Your task to perform on an android device: change the clock style Image 0: 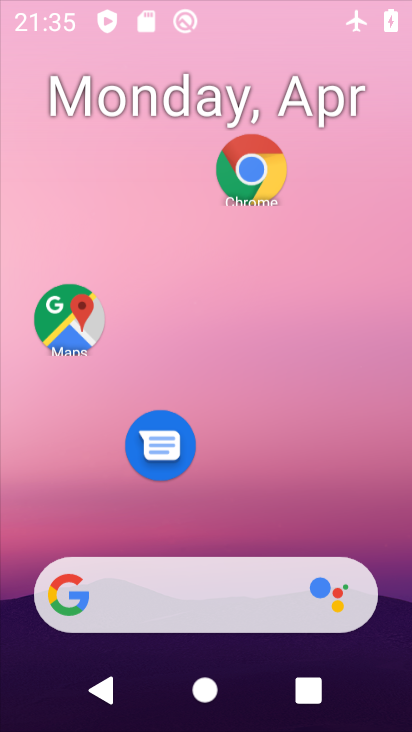
Step 0: click (202, 190)
Your task to perform on an android device: change the clock style Image 1: 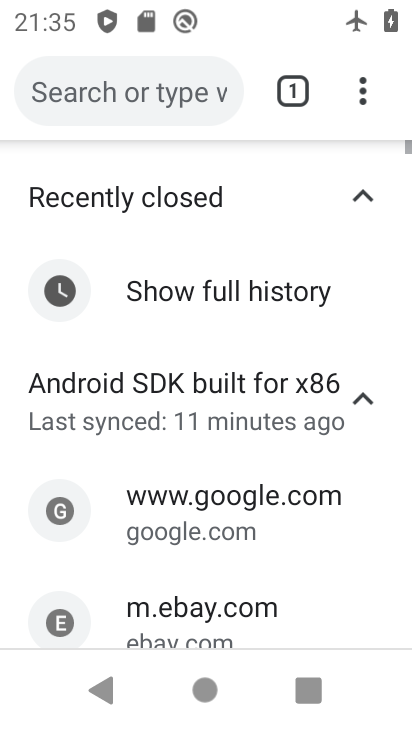
Step 1: click (106, 698)
Your task to perform on an android device: change the clock style Image 2: 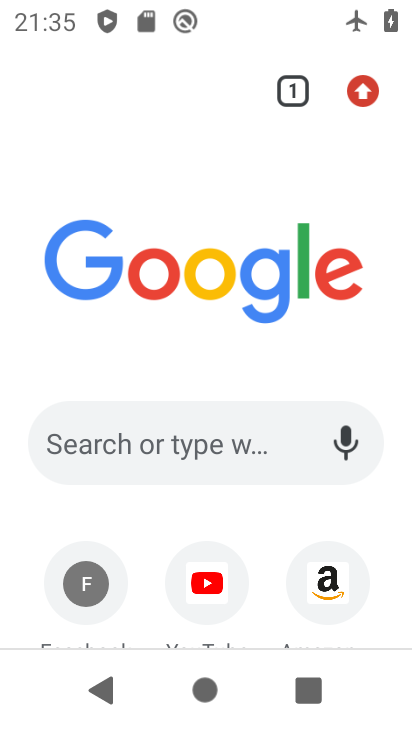
Step 2: press home button
Your task to perform on an android device: change the clock style Image 3: 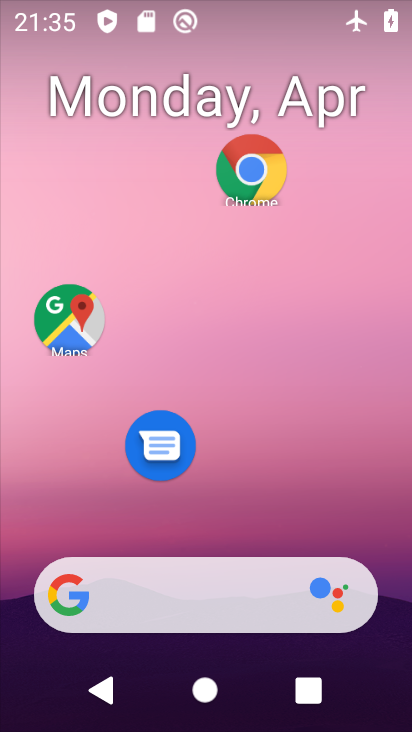
Step 3: drag from (212, 534) to (216, 80)
Your task to perform on an android device: change the clock style Image 4: 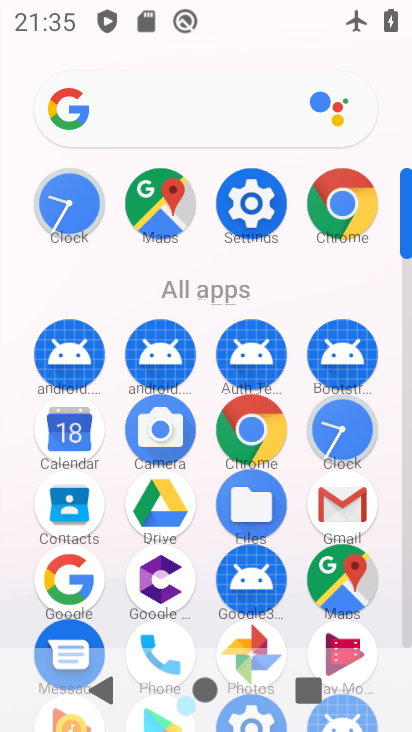
Step 4: click (81, 208)
Your task to perform on an android device: change the clock style Image 5: 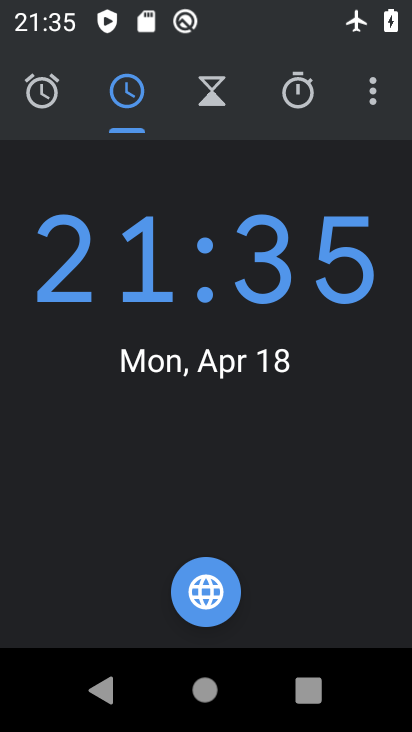
Step 5: click (378, 83)
Your task to perform on an android device: change the clock style Image 6: 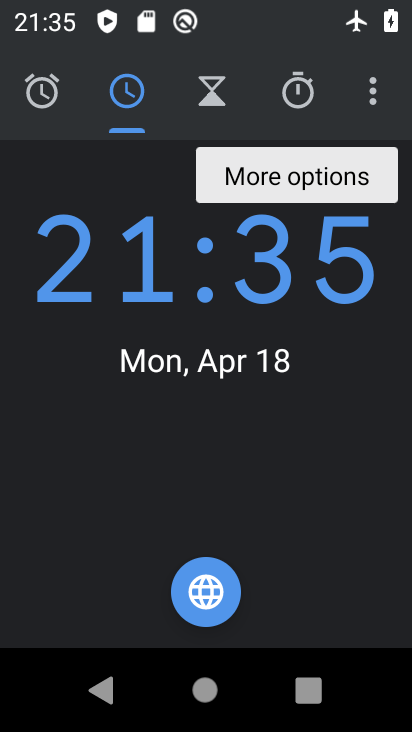
Step 6: click (372, 104)
Your task to perform on an android device: change the clock style Image 7: 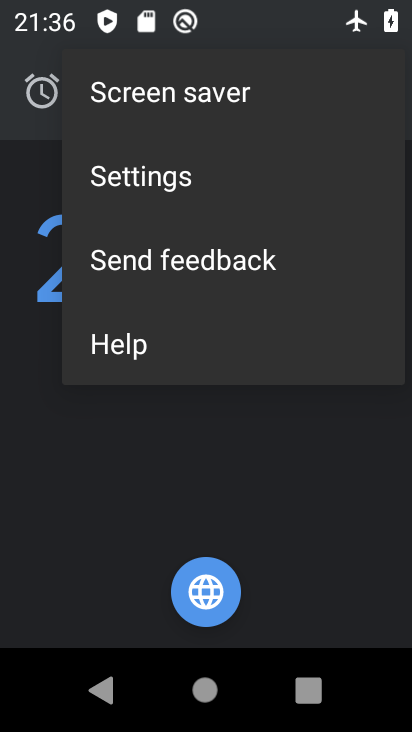
Step 7: click (143, 181)
Your task to perform on an android device: change the clock style Image 8: 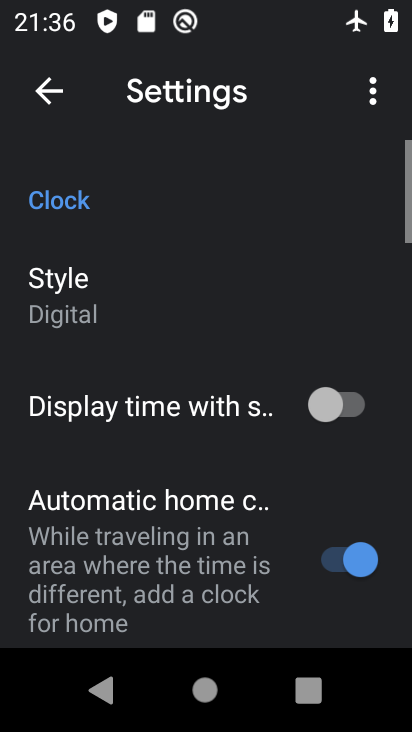
Step 8: click (68, 318)
Your task to perform on an android device: change the clock style Image 9: 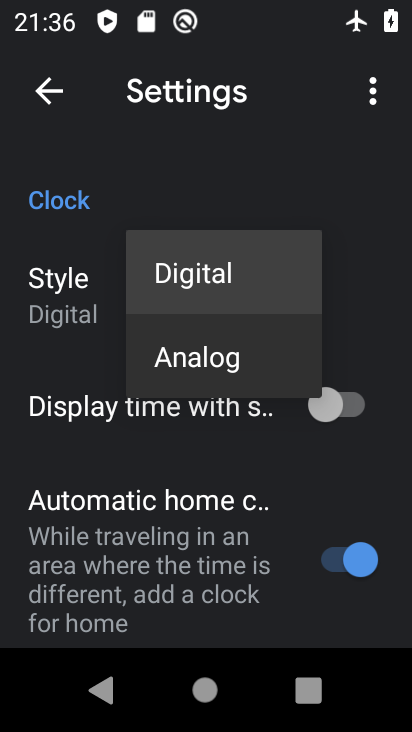
Step 9: click (185, 358)
Your task to perform on an android device: change the clock style Image 10: 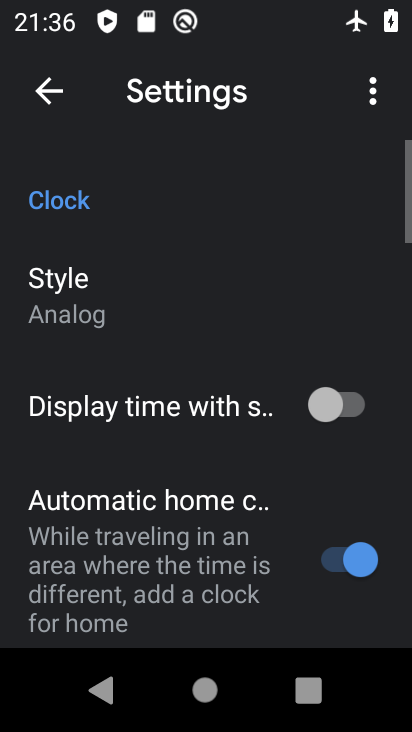
Step 10: task complete